Your task to perform on an android device: delete the emails in spam in the gmail app Image 0: 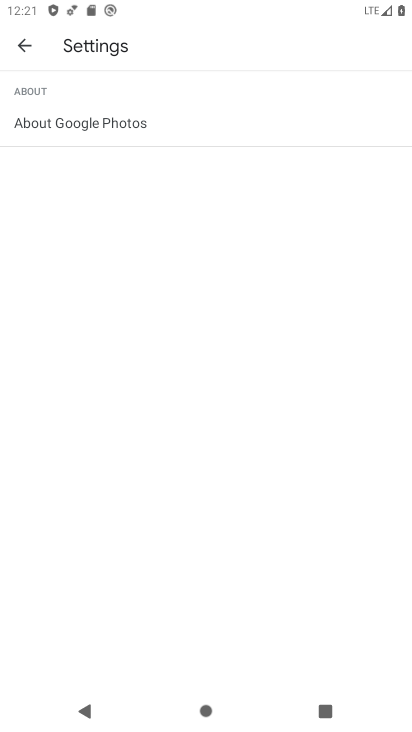
Step 0: press home button
Your task to perform on an android device: delete the emails in spam in the gmail app Image 1: 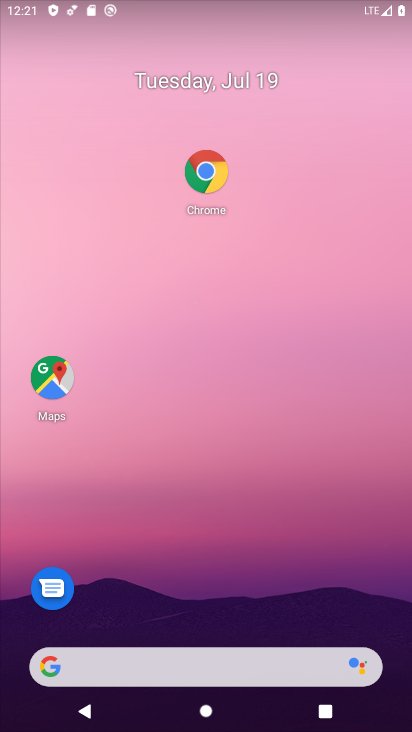
Step 1: drag from (174, 621) to (156, 79)
Your task to perform on an android device: delete the emails in spam in the gmail app Image 2: 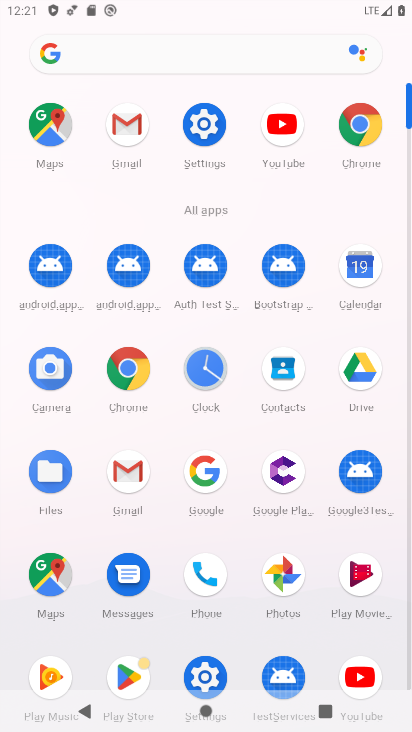
Step 2: click (129, 137)
Your task to perform on an android device: delete the emails in spam in the gmail app Image 3: 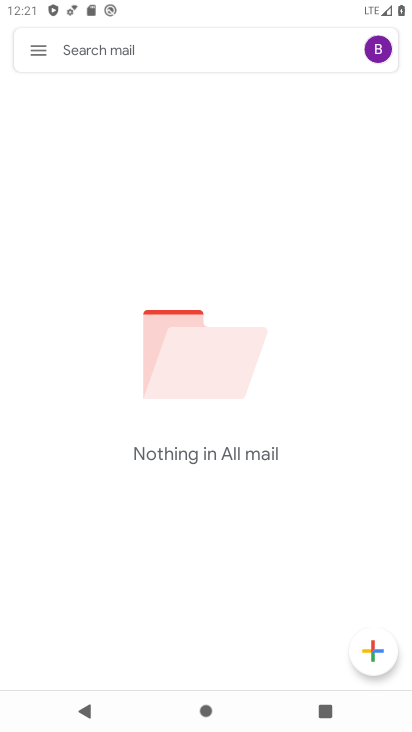
Step 3: click (45, 43)
Your task to perform on an android device: delete the emails in spam in the gmail app Image 4: 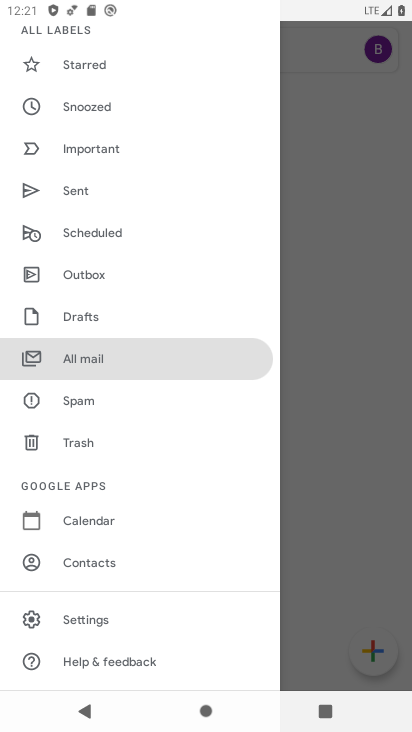
Step 4: click (96, 406)
Your task to perform on an android device: delete the emails in spam in the gmail app Image 5: 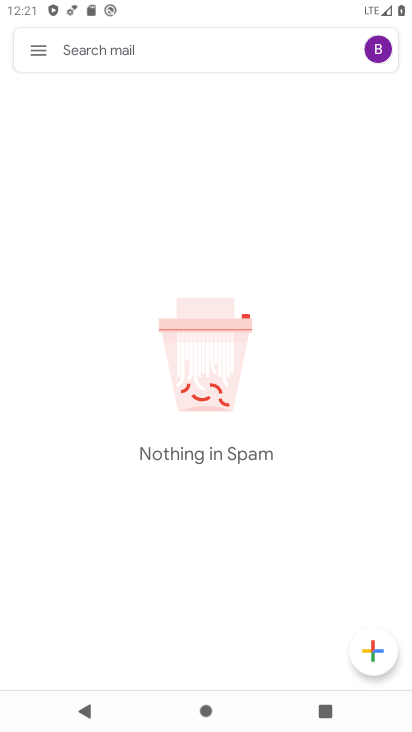
Step 5: task complete